Your task to perform on an android device: What's the weather going to be tomorrow? Image 0: 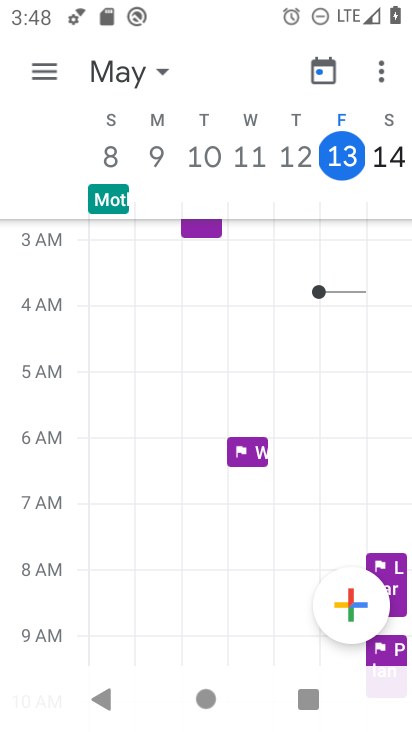
Step 0: press home button
Your task to perform on an android device: What's the weather going to be tomorrow? Image 1: 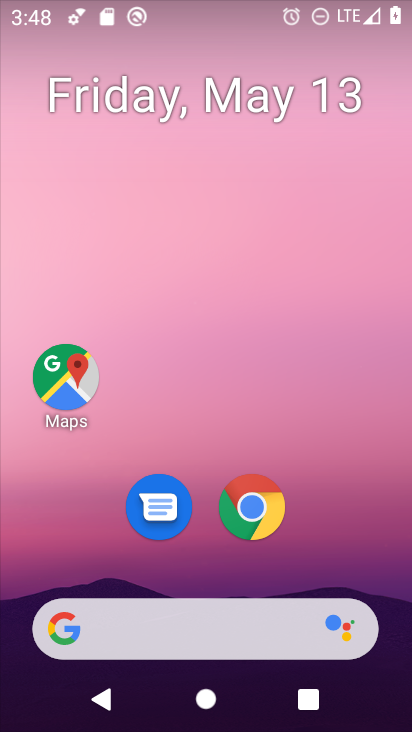
Step 1: drag from (389, 423) to (410, 77)
Your task to perform on an android device: What's the weather going to be tomorrow? Image 2: 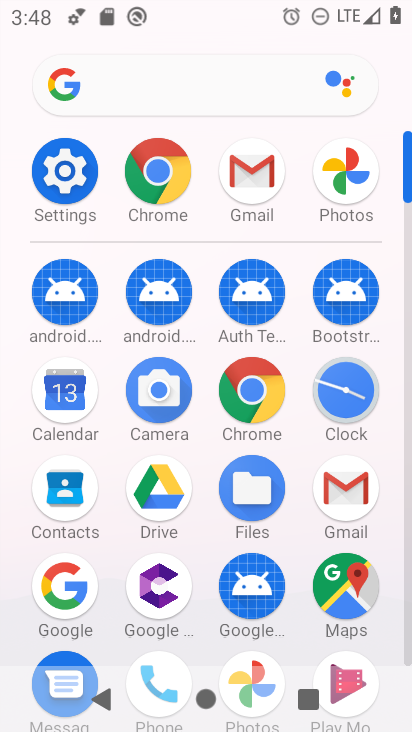
Step 2: click (63, 569)
Your task to perform on an android device: What's the weather going to be tomorrow? Image 3: 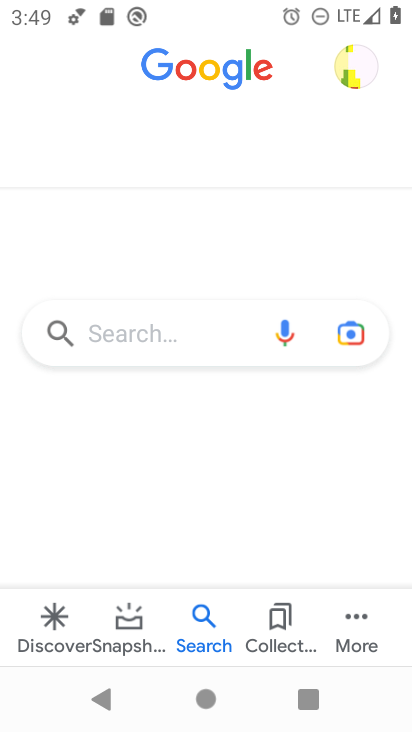
Step 3: click (215, 316)
Your task to perform on an android device: What's the weather going to be tomorrow? Image 4: 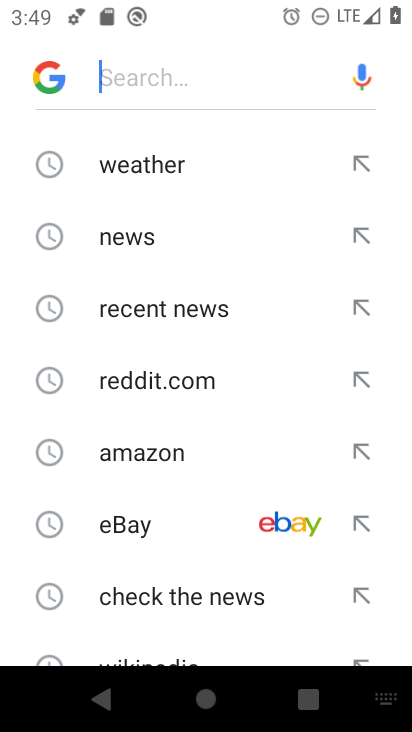
Step 4: click (150, 153)
Your task to perform on an android device: What's the weather going to be tomorrow? Image 5: 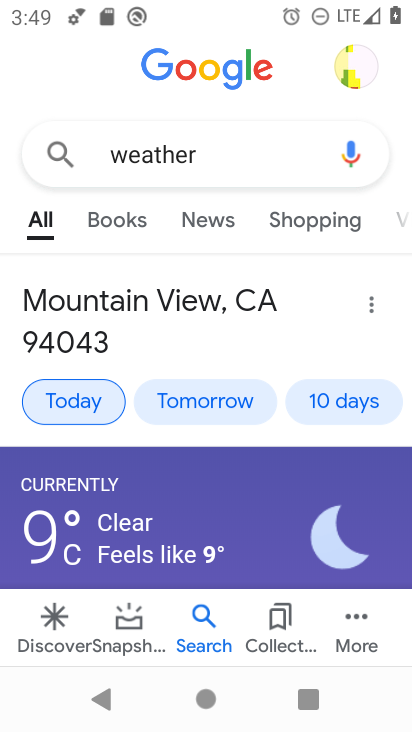
Step 5: click (202, 397)
Your task to perform on an android device: What's the weather going to be tomorrow? Image 6: 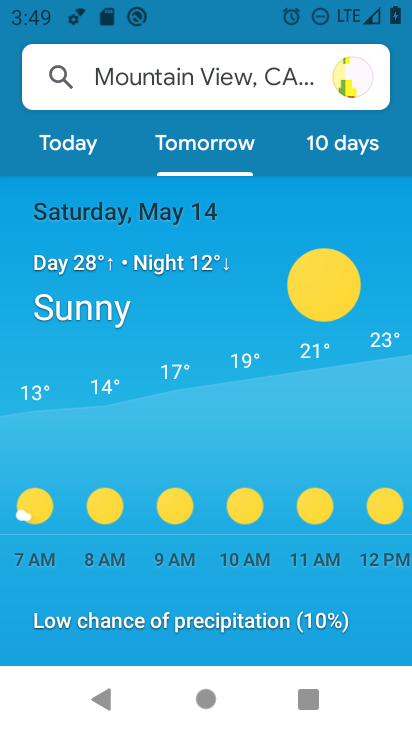
Step 6: task complete